Your task to perform on an android device: Search for pizza restaurants on Maps Image 0: 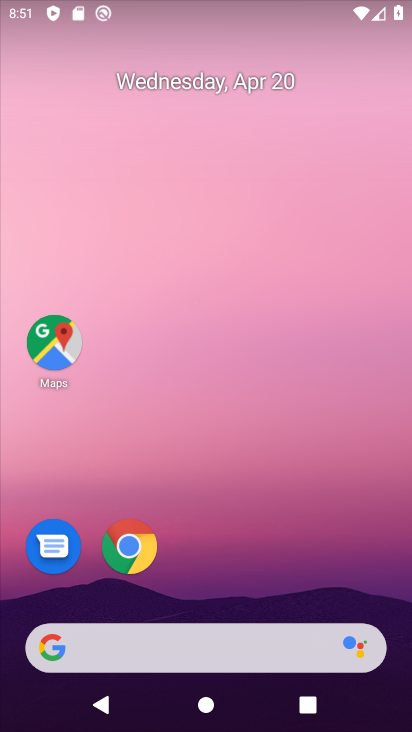
Step 0: drag from (218, 581) to (184, 137)
Your task to perform on an android device: Search for pizza restaurants on Maps Image 1: 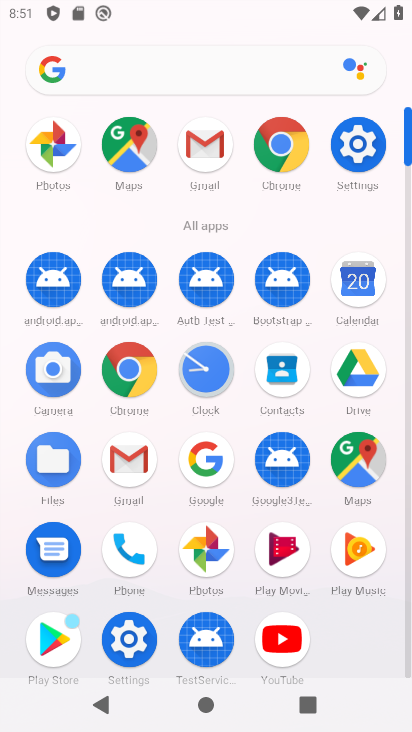
Step 1: click (135, 147)
Your task to perform on an android device: Search for pizza restaurants on Maps Image 2: 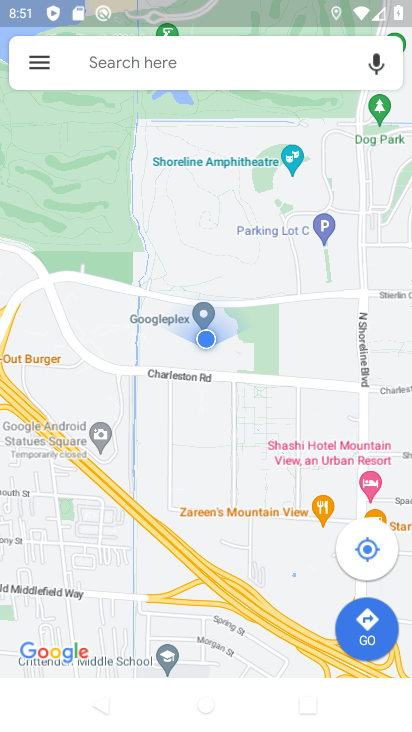
Step 2: click (132, 65)
Your task to perform on an android device: Search for pizza restaurants on Maps Image 3: 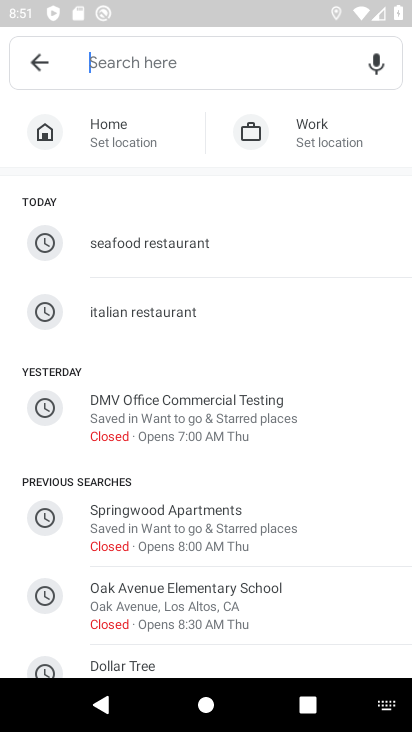
Step 3: type "pizza restaurants"
Your task to perform on an android device: Search for pizza restaurants on Maps Image 4: 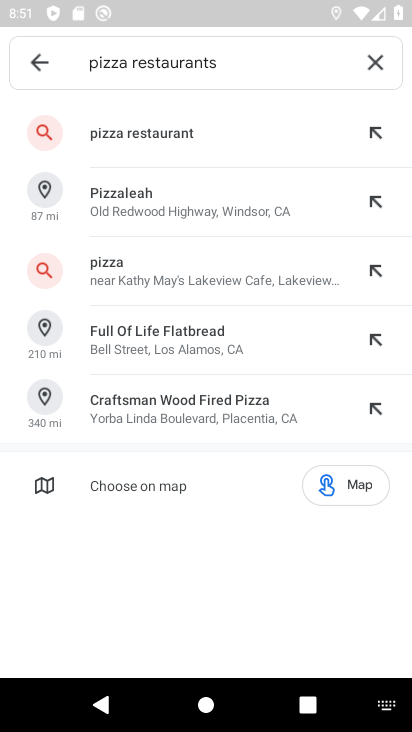
Step 4: click (132, 135)
Your task to perform on an android device: Search for pizza restaurants on Maps Image 5: 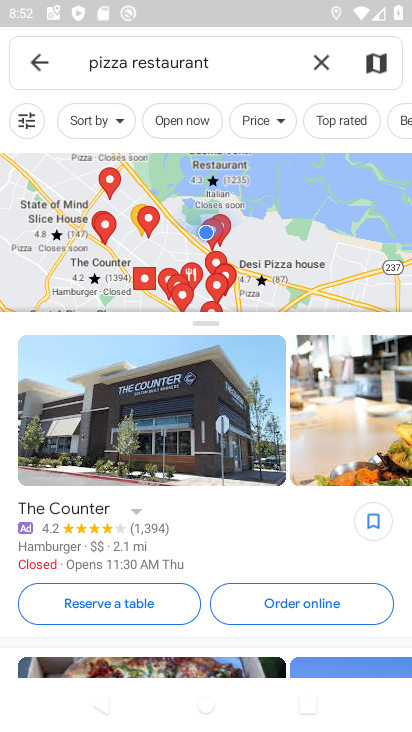
Step 5: task complete